Your task to perform on an android device: toggle notification dots Image 0: 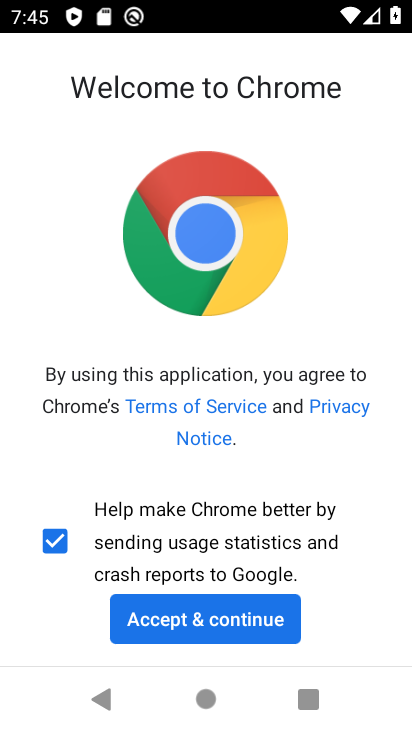
Step 0: press back button
Your task to perform on an android device: toggle notification dots Image 1: 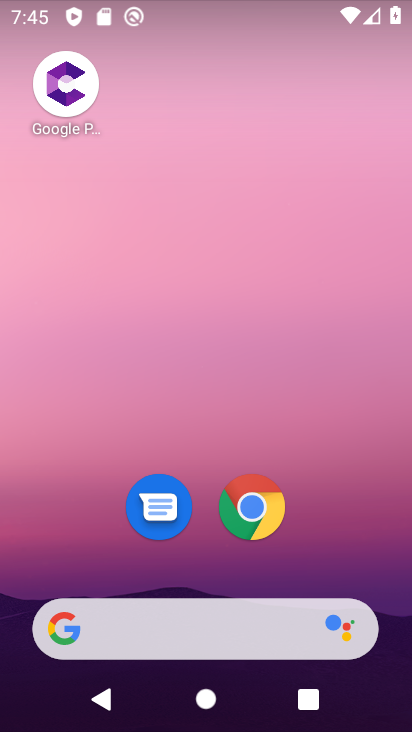
Step 1: drag from (325, 525) to (294, 0)
Your task to perform on an android device: toggle notification dots Image 2: 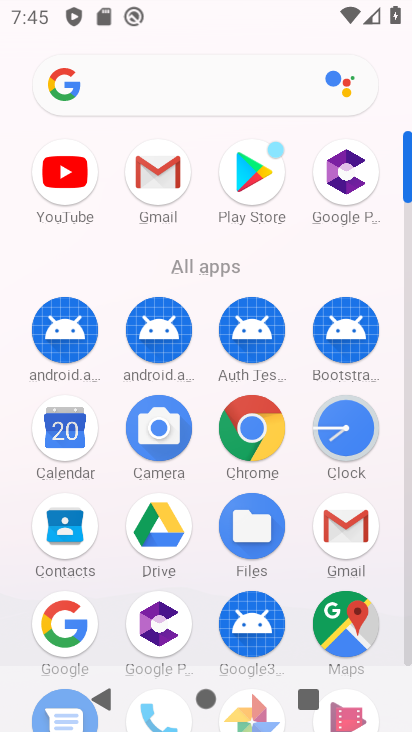
Step 2: drag from (9, 550) to (24, 242)
Your task to perform on an android device: toggle notification dots Image 3: 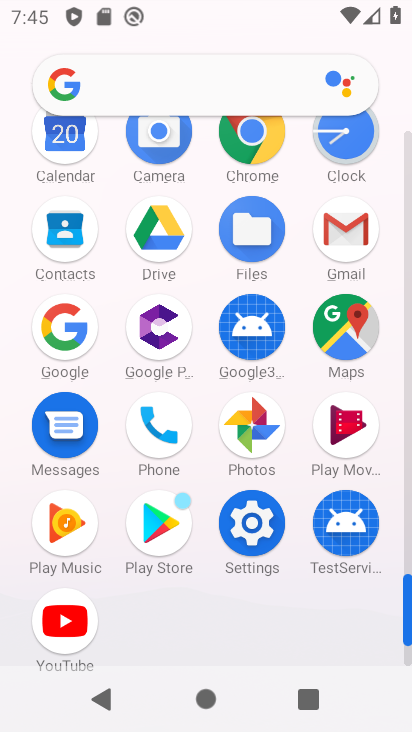
Step 3: click (253, 525)
Your task to perform on an android device: toggle notification dots Image 4: 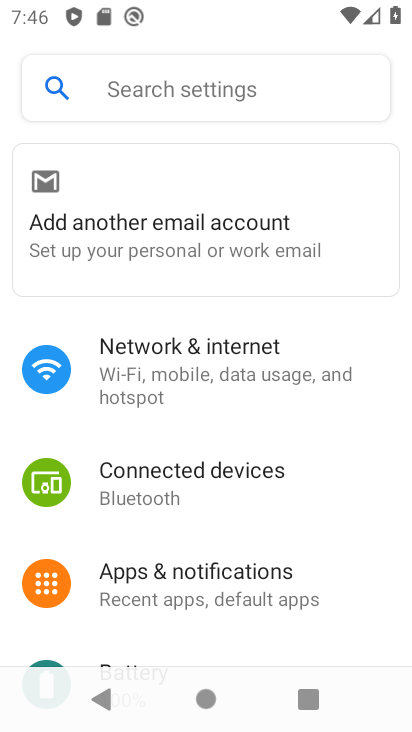
Step 4: click (198, 573)
Your task to perform on an android device: toggle notification dots Image 5: 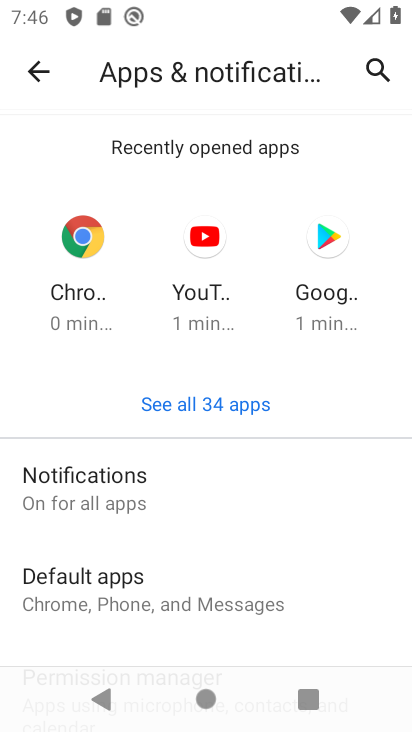
Step 5: click (167, 485)
Your task to perform on an android device: toggle notification dots Image 6: 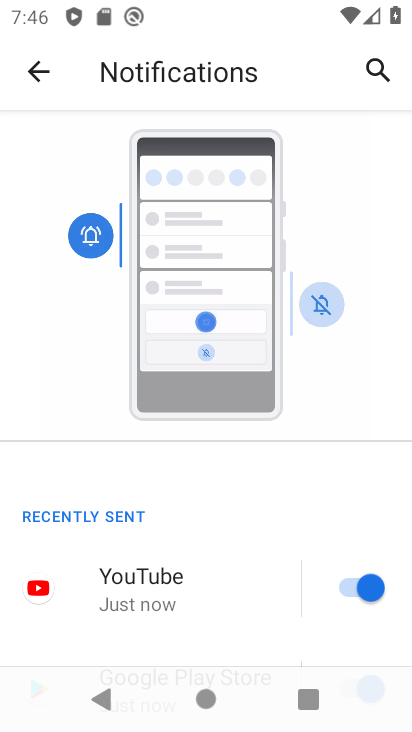
Step 6: drag from (247, 585) to (281, 138)
Your task to perform on an android device: toggle notification dots Image 7: 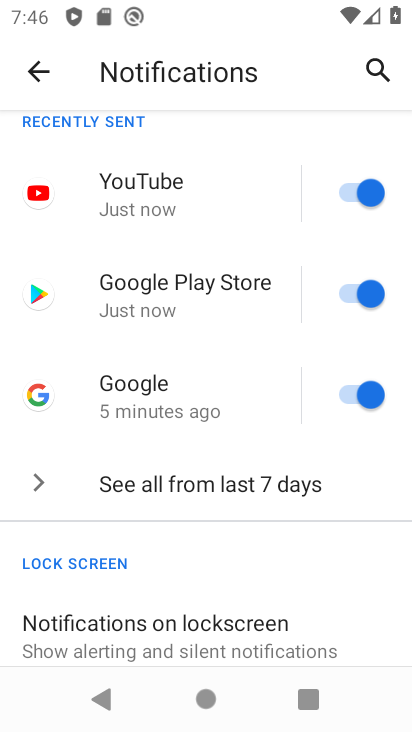
Step 7: drag from (232, 546) to (259, 73)
Your task to perform on an android device: toggle notification dots Image 8: 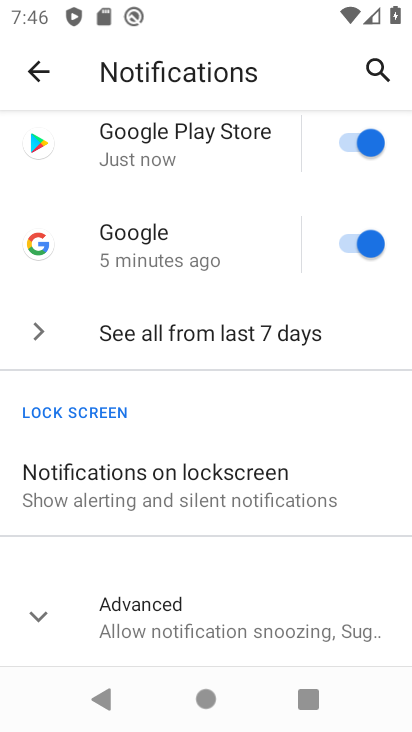
Step 8: click (39, 608)
Your task to perform on an android device: toggle notification dots Image 9: 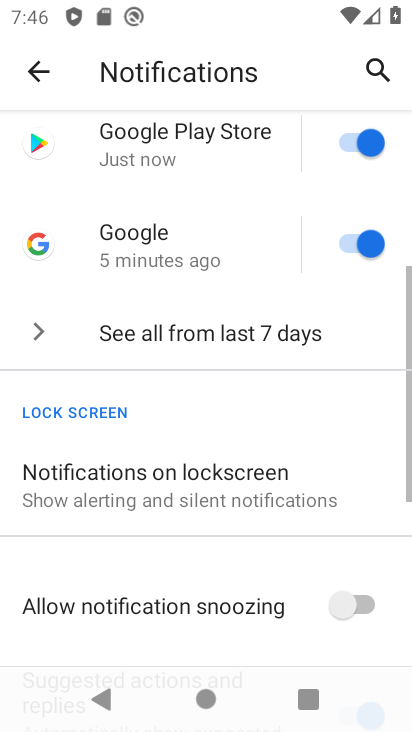
Step 9: drag from (196, 462) to (202, 157)
Your task to perform on an android device: toggle notification dots Image 10: 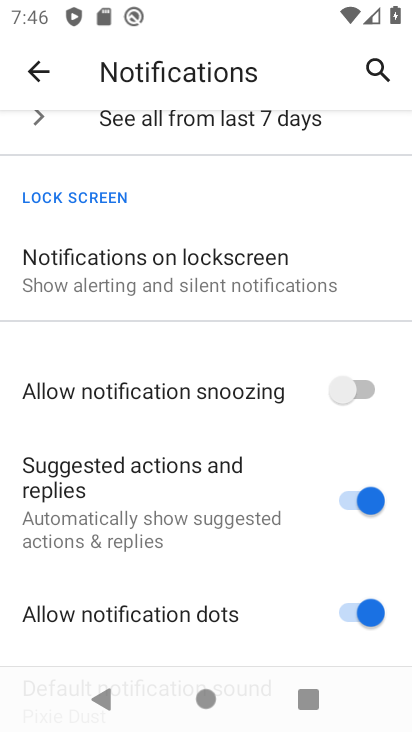
Step 10: click (347, 613)
Your task to perform on an android device: toggle notification dots Image 11: 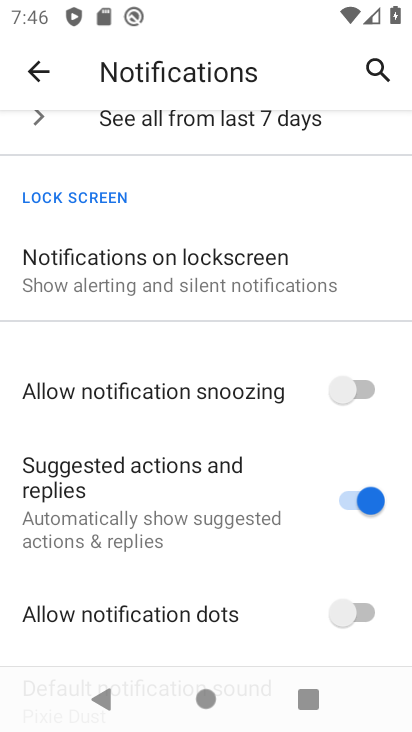
Step 11: task complete